Your task to perform on an android device: clear all cookies in the chrome app Image 0: 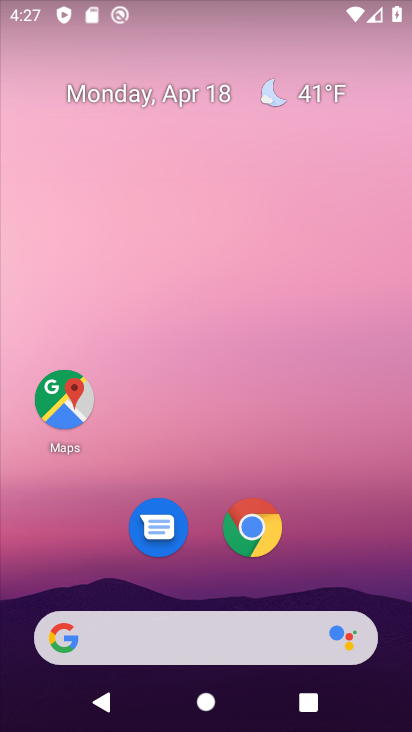
Step 0: click (252, 530)
Your task to perform on an android device: clear all cookies in the chrome app Image 1: 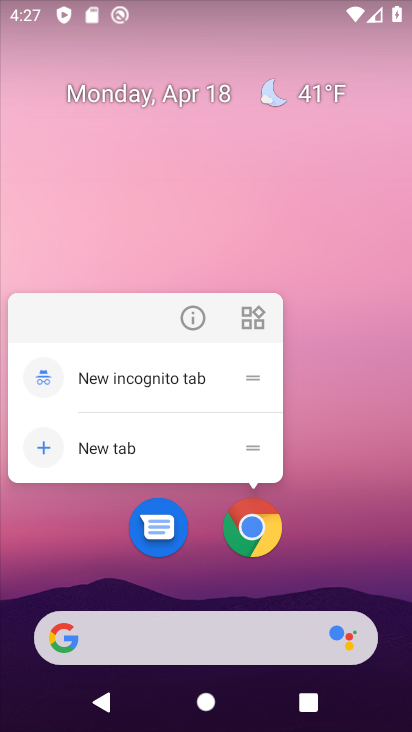
Step 1: click (267, 533)
Your task to perform on an android device: clear all cookies in the chrome app Image 2: 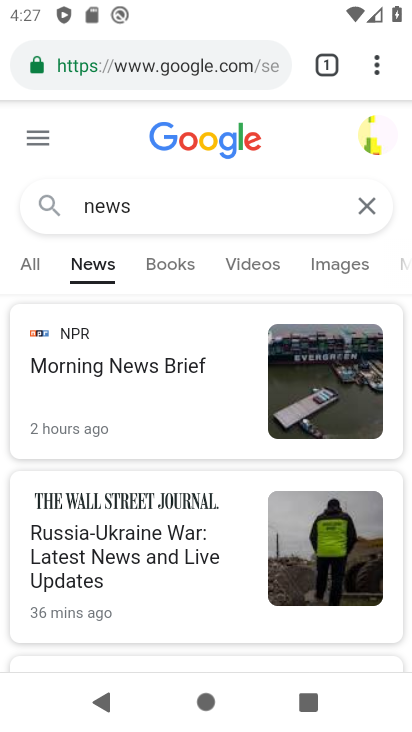
Step 2: click (373, 64)
Your task to perform on an android device: clear all cookies in the chrome app Image 3: 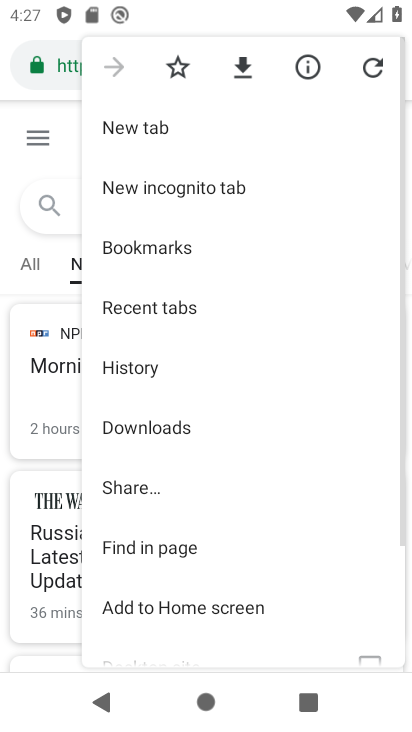
Step 3: drag from (202, 531) to (248, 127)
Your task to perform on an android device: clear all cookies in the chrome app Image 4: 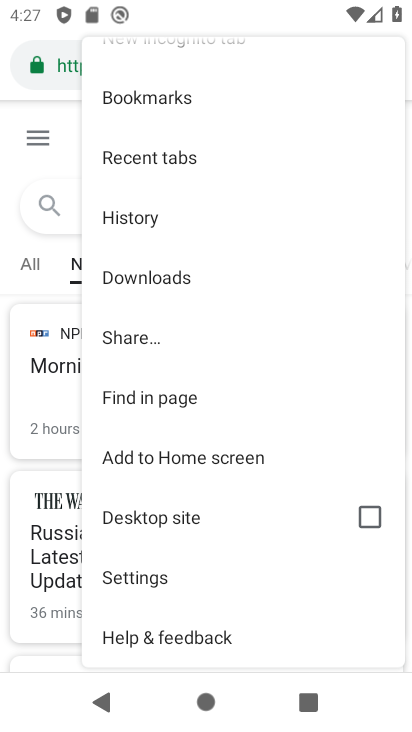
Step 4: click (157, 574)
Your task to perform on an android device: clear all cookies in the chrome app Image 5: 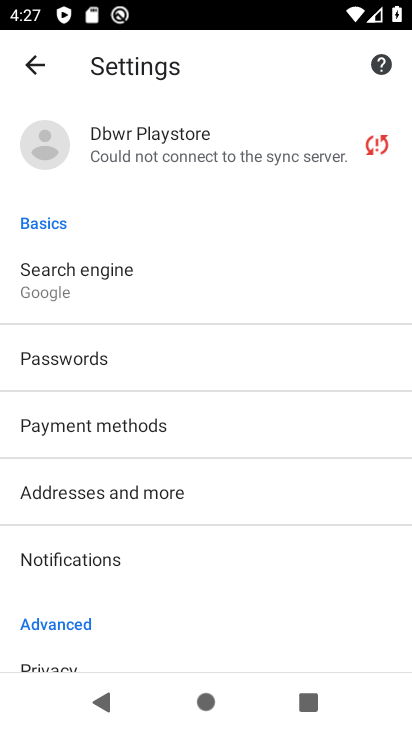
Step 5: click (38, 76)
Your task to perform on an android device: clear all cookies in the chrome app Image 6: 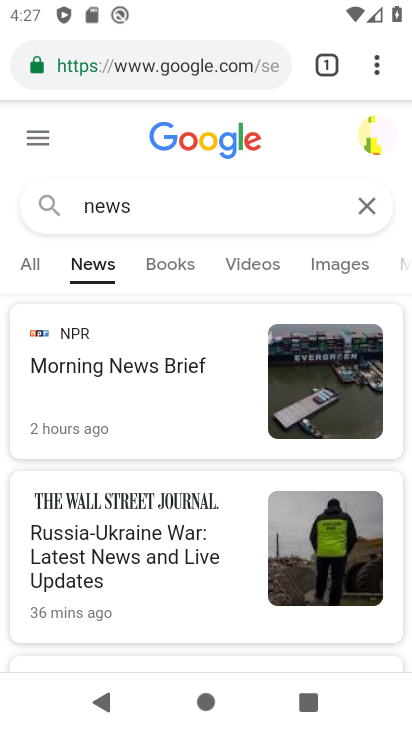
Step 6: click (375, 63)
Your task to perform on an android device: clear all cookies in the chrome app Image 7: 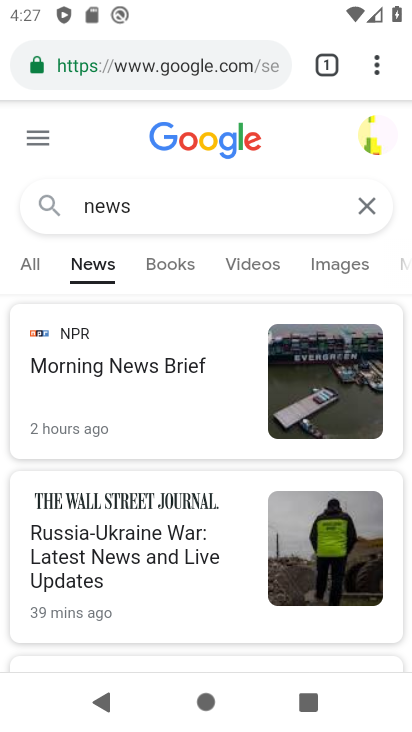
Step 7: click (381, 59)
Your task to perform on an android device: clear all cookies in the chrome app Image 8: 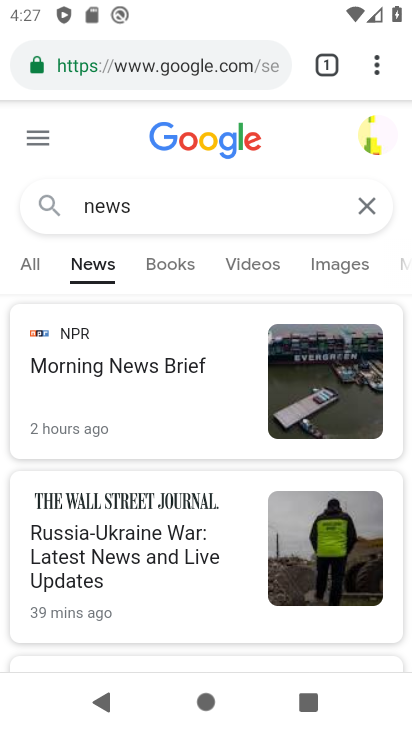
Step 8: click (377, 54)
Your task to perform on an android device: clear all cookies in the chrome app Image 9: 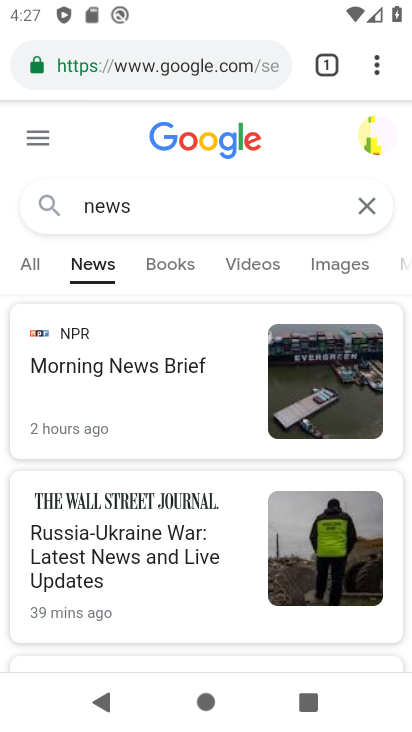
Step 9: drag from (377, 61) to (143, 368)
Your task to perform on an android device: clear all cookies in the chrome app Image 10: 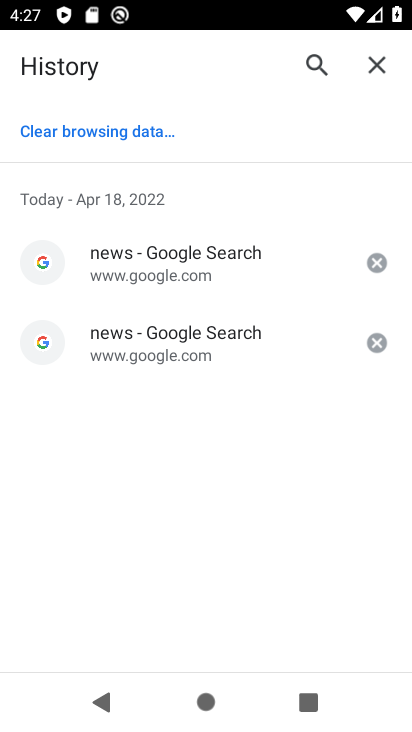
Step 10: click (111, 127)
Your task to perform on an android device: clear all cookies in the chrome app Image 11: 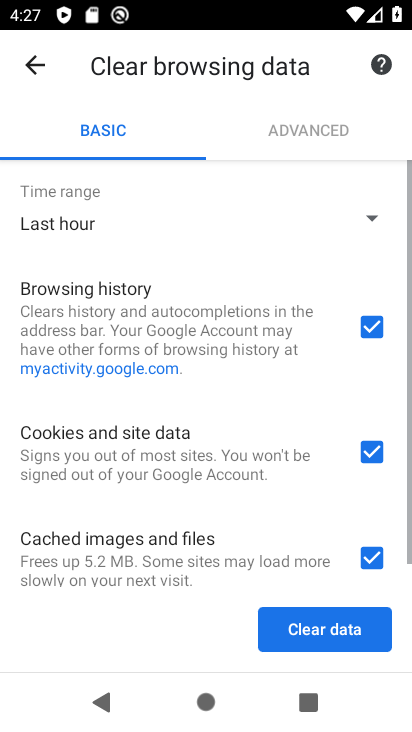
Step 11: click (318, 630)
Your task to perform on an android device: clear all cookies in the chrome app Image 12: 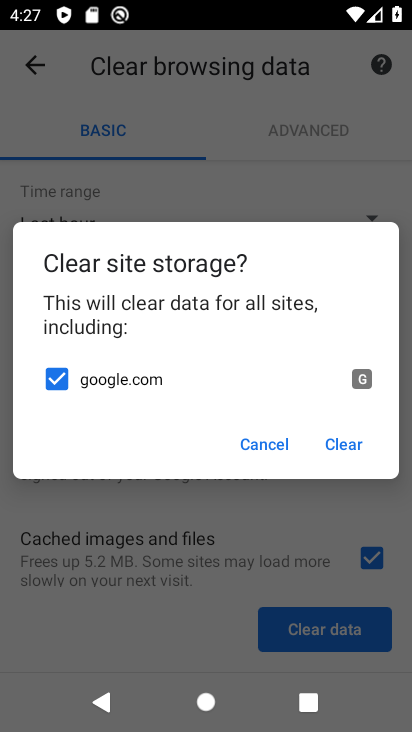
Step 12: click (333, 446)
Your task to perform on an android device: clear all cookies in the chrome app Image 13: 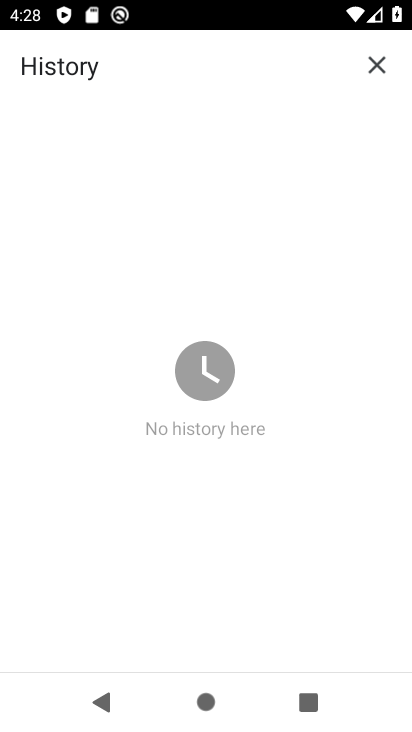
Step 13: task complete